Your task to perform on an android device: turn notification dots off Image 0: 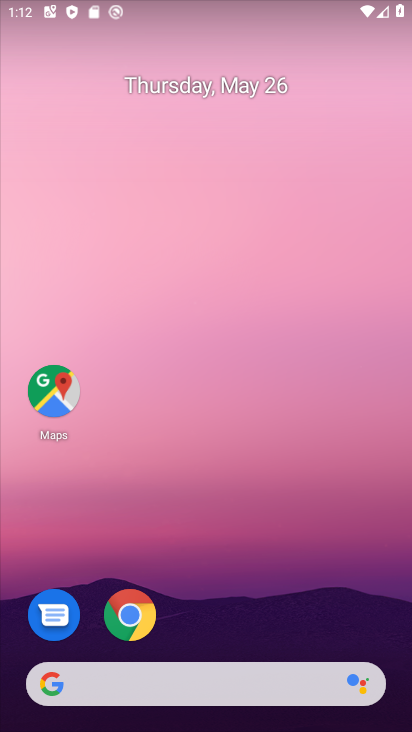
Step 0: drag from (260, 633) to (311, 172)
Your task to perform on an android device: turn notification dots off Image 1: 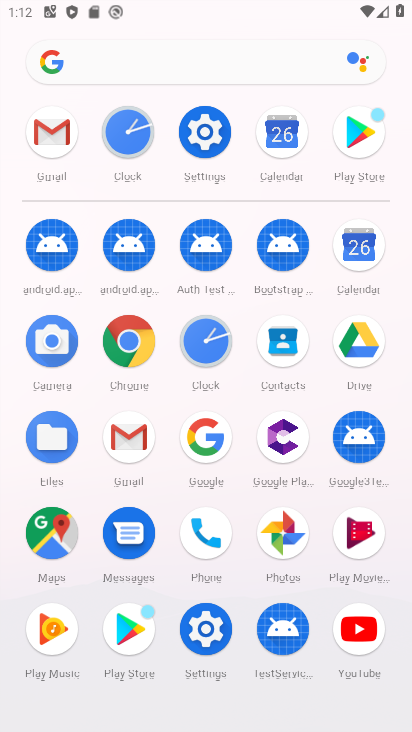
Step 1: click (208, 137)
Your task to perform on an android device: turn notification dots off Image 2: 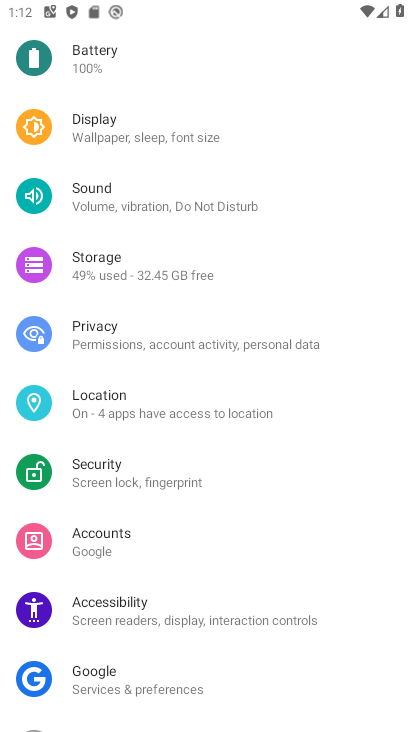
Step 2: drag from (209, 142) to (141, 731)
Your task to perform on an android device: turn notification dots off Image 3: 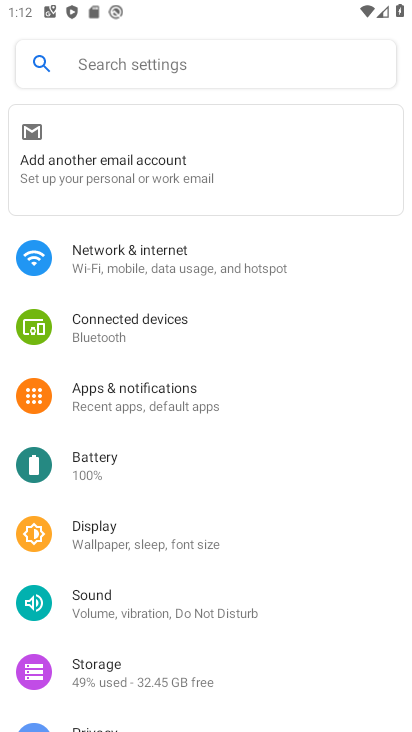
Step 3: click (193, 388)
Your task to perform on an android device: turn notification dots off Image 4: 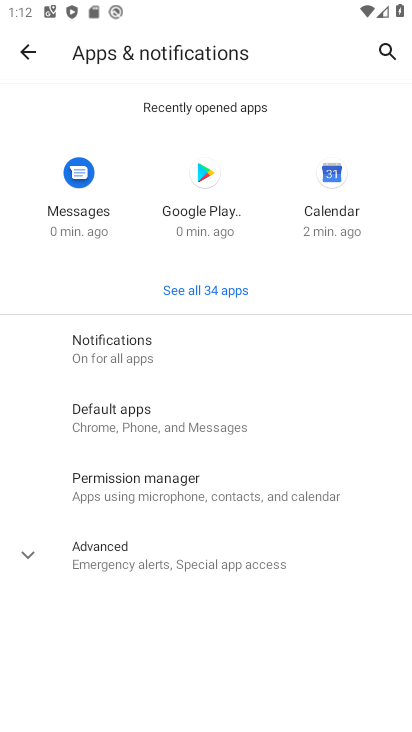
Step 4: click (142, 339)
Your task to perform on an android device: turn notification dots off Image 5: 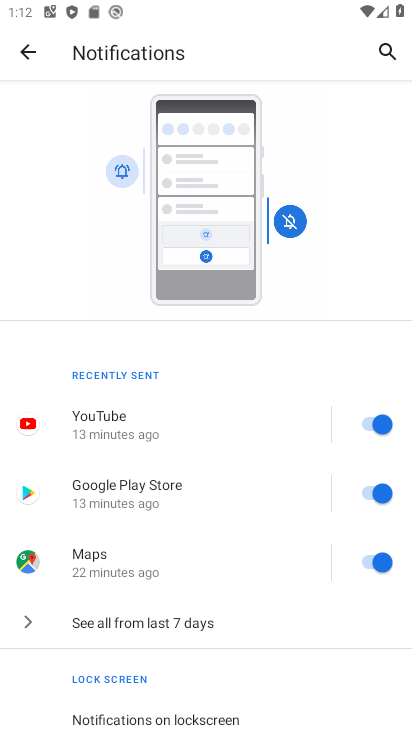
Step 5: drag from (187, 624) to (303, 135)
Your task to perform on an android device: turn notification dots off Image 6: 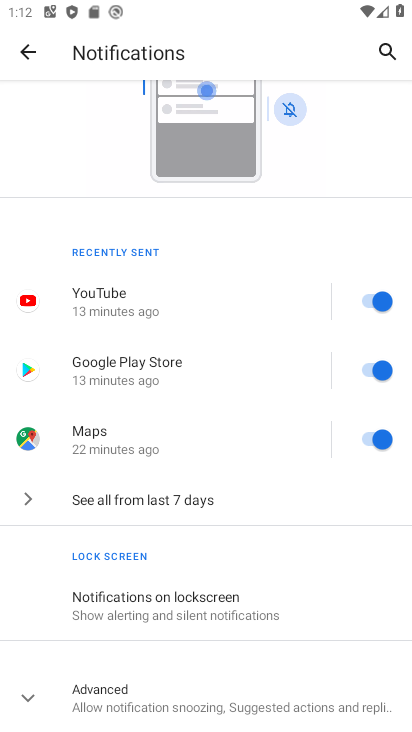
Step 6: click (147, 681)
Your task to perform on an android device: turn notification dots off Image 7: 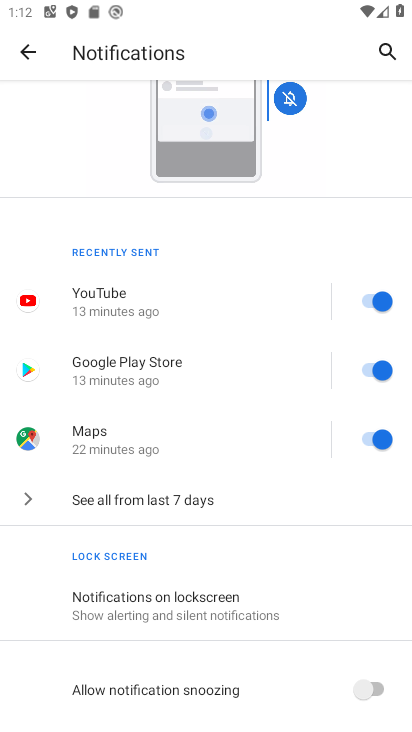
Step 7: drag from (174, 639) to (257, 214)
Your task to perform on an android device: turn notification dots off Image 8: 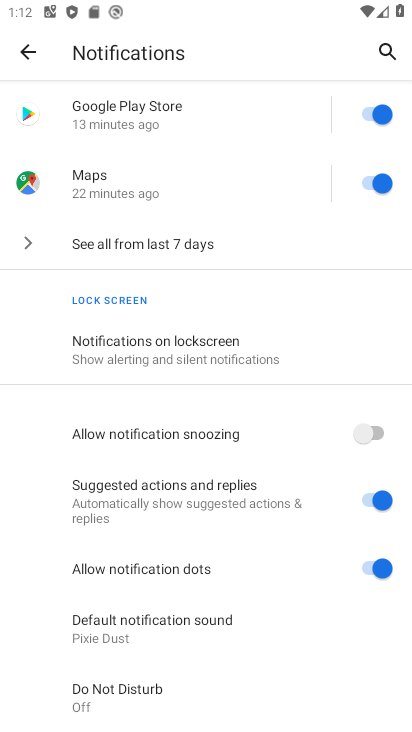
Step 8: click (374, 566)
Your task to perform on an android device: turn notification dots off Image 9: 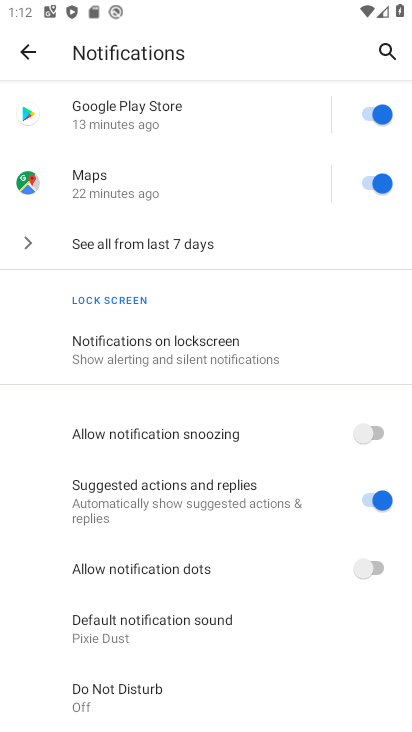
Step 9: task complete